Your task to perform on an android device: add a contact Image 0: 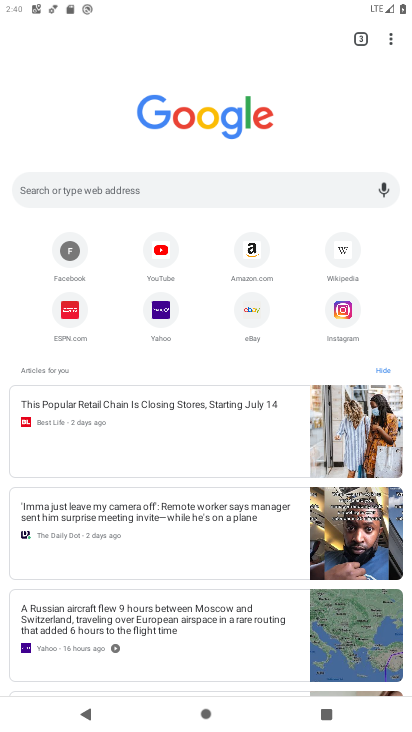
Step 0: press home button
Your task to perform on an android device: add a contact Image 1: 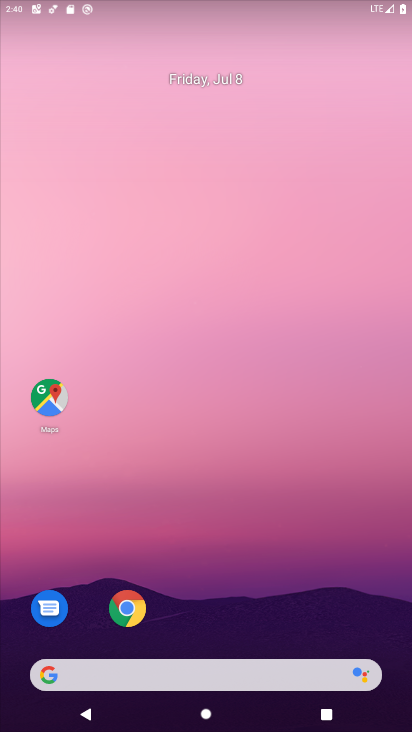
Step 1: drag from (237, 496) to (253, 372)
Your task to perform on an android device: add a contact Image 2: 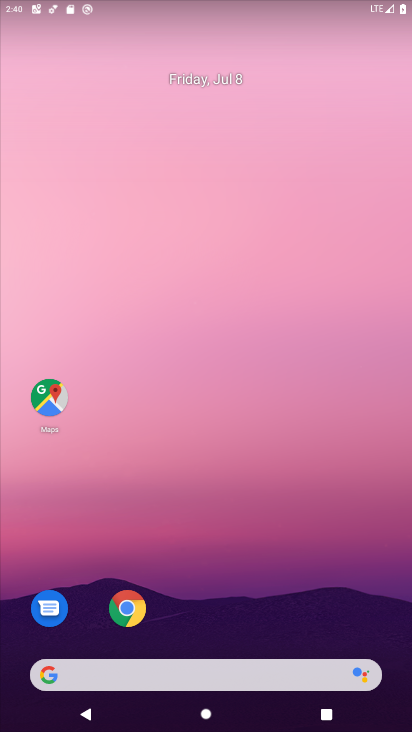
Step 2: drag from (208, 679) to (263, 298)
Your task to perform on an android device: add a contact Image 3: 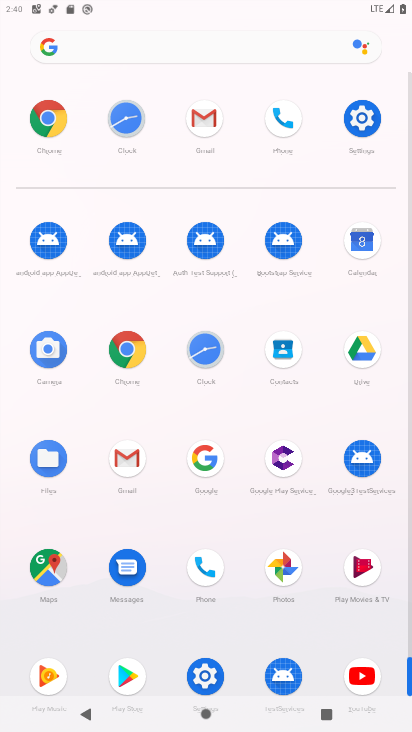
Step 3: click (279, 116)
Your task to perform on an android device: add a contact Image 4: 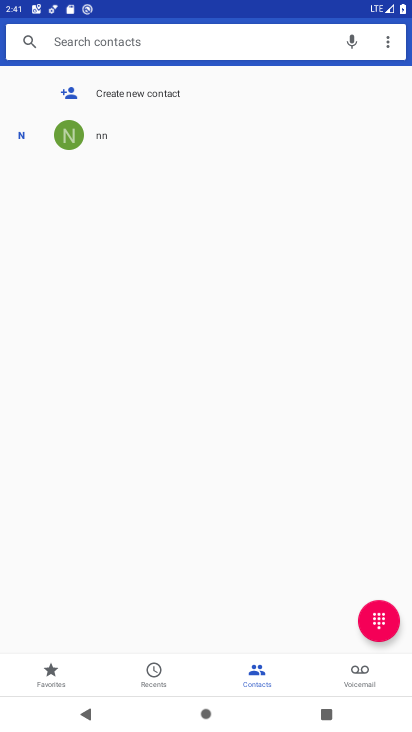
Step 4: click (73, 97)
Your task to perform on an android device: add a contact Image 5: 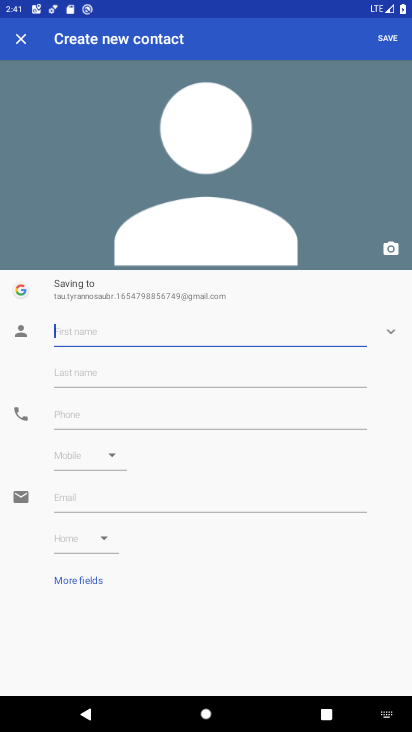
Step 5: click (183, 325)
Your task to perform on an android device: add a contact Image 6: 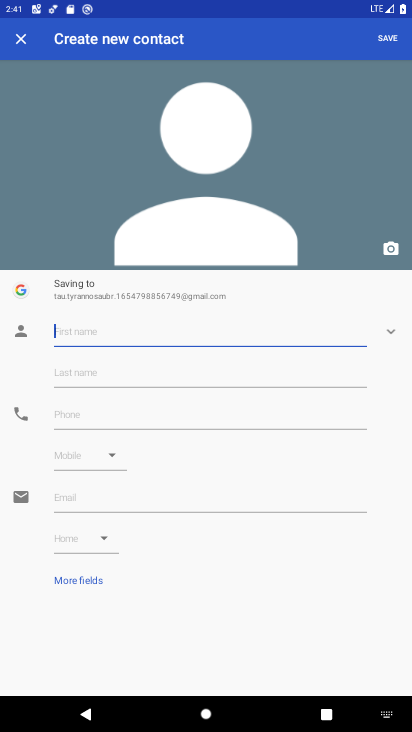
Step 6: type "hfgffgfgffyygiu"
Your task to perform on an android device: add a contact Image 7: 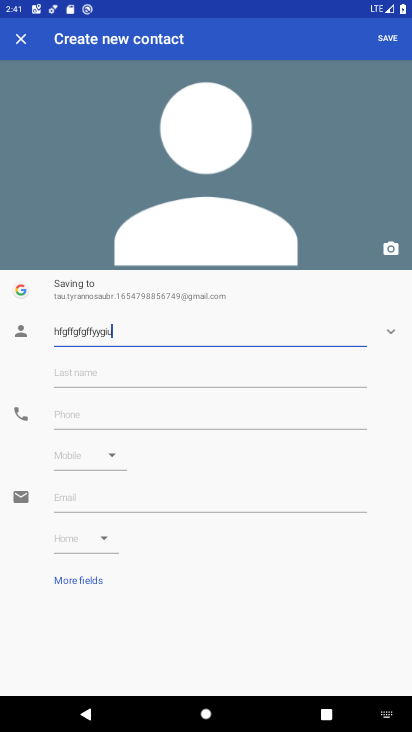
Step 7: click (139, 416)
Your task to perform on an android device: add a contact Image 8: 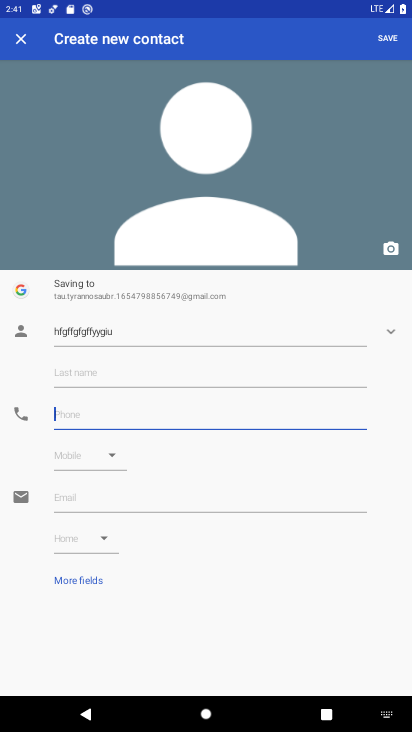
Step 8: type "123456789"
Your task to perform on an android device: add a contact Image 9: 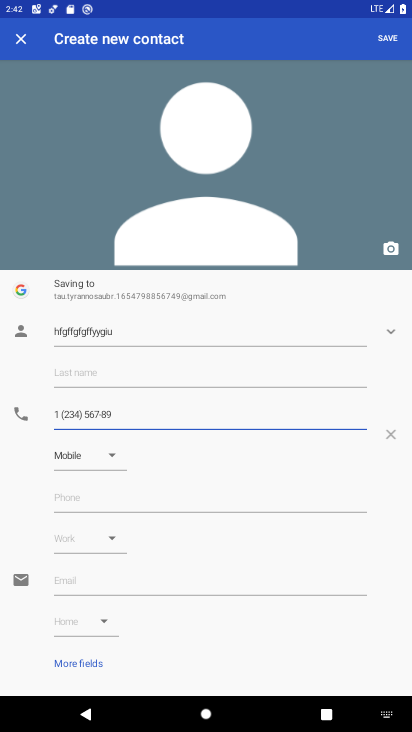
Step 9: click (364, 28)
Your task to perform on an android device: add a contact Image 10: 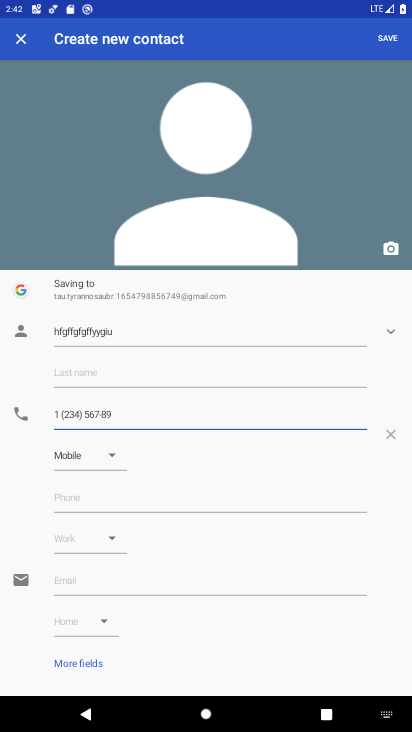
Step 10: click (372, 39)
Your task to perform on an android device: add a contact Image 11: 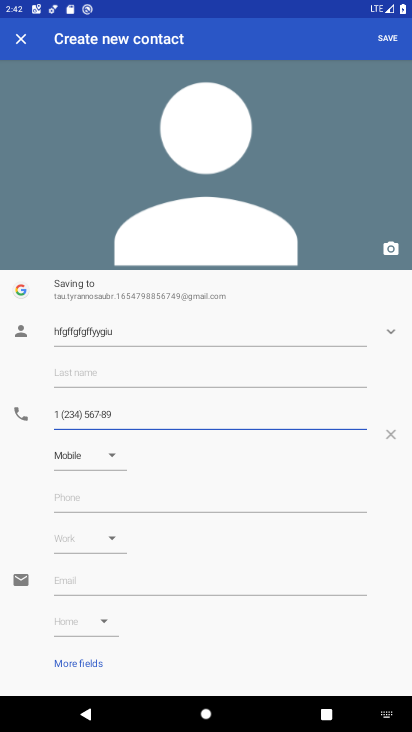
Step 11: click (393, 39)
Your task to perform on an android device: add a contact Image 12: 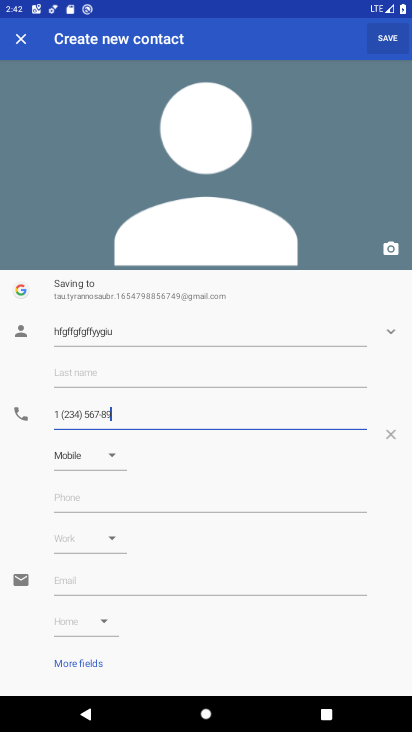
Step 12: click (394, 39)
Your task to perform on an android device: add a contact Image 13: 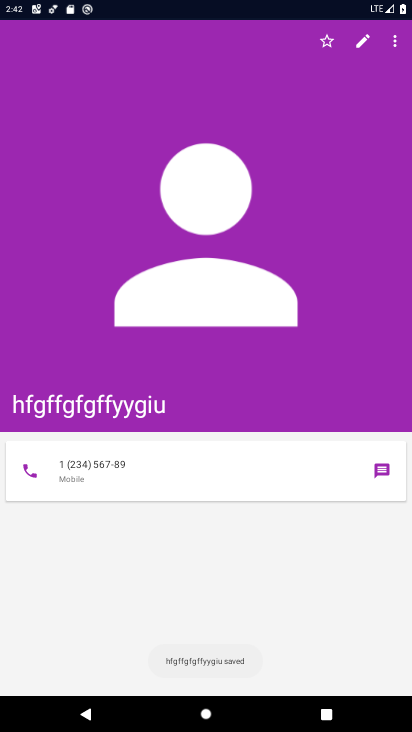
Step 13: task complete